Your task to perform on an android device: Open calendar and show me the second week of next month Image 0: 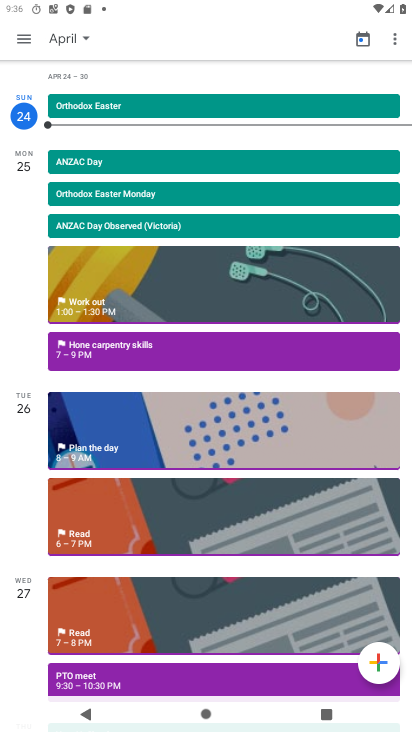
Step 0: click (82, 38)
Your task to perform on an android device: Open calendar and show me the second week of next month Image 1: 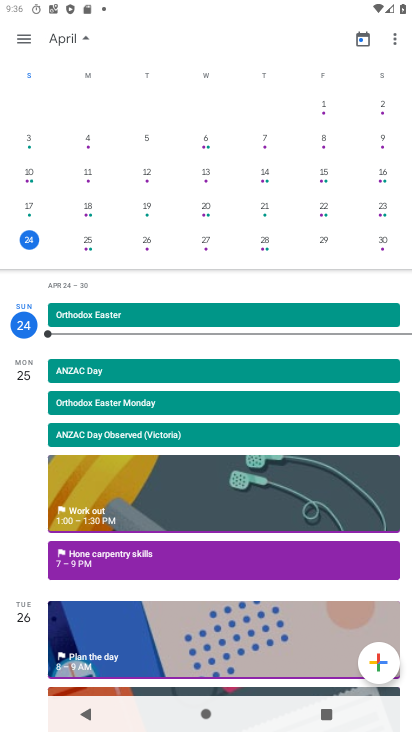
Step 1: drag from (336, 222) to (12, 214)
Your task to perform on an android device: Open calendar and show me the second week of next month Image 2: 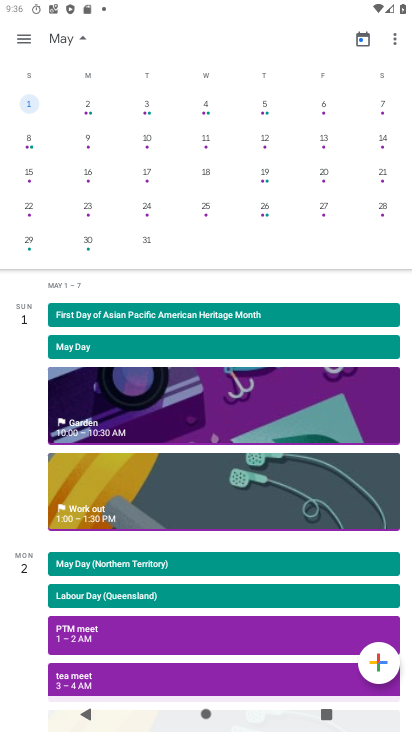
Step 2: click (85, 137)
Your task to perform on an android device: Open calendar and show me the second week of next month Image 3: 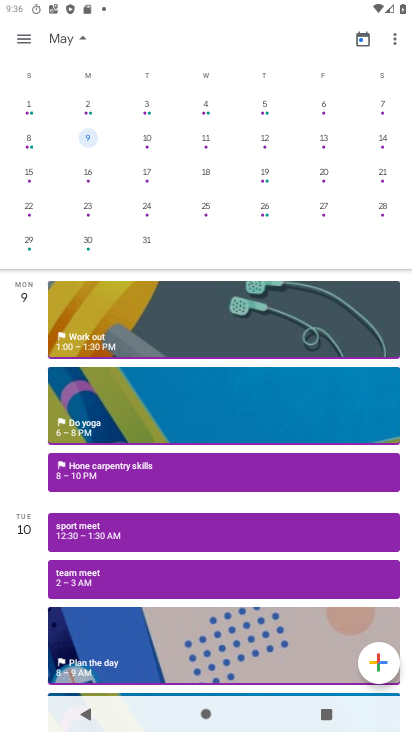
Step 3: task complete